Your task to perform on an android device: Open Maps and search for coffee Image 0: 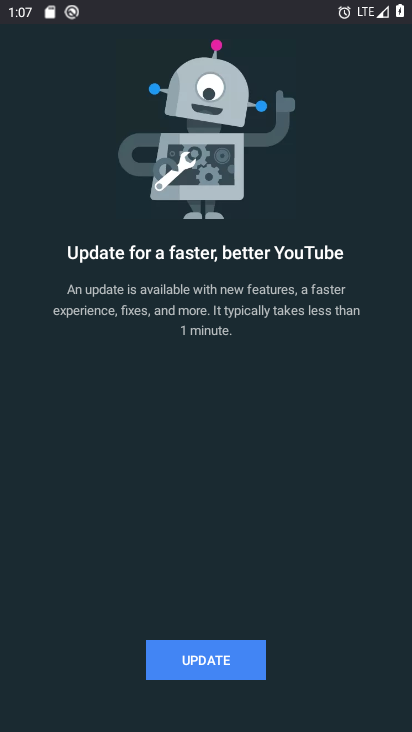
Step 0: press home button
Your task to perform on an android device: Open Maps and search for coffee Image 1: 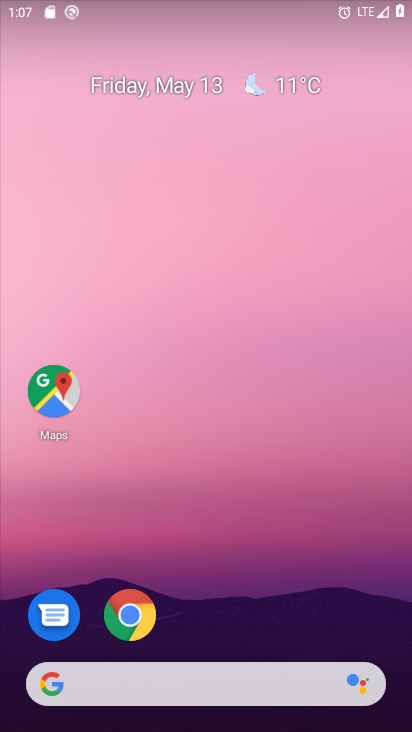
Step 1: click (63, 389)
Your task to perform on an android device: Open Maps and search for coffee Image 2: 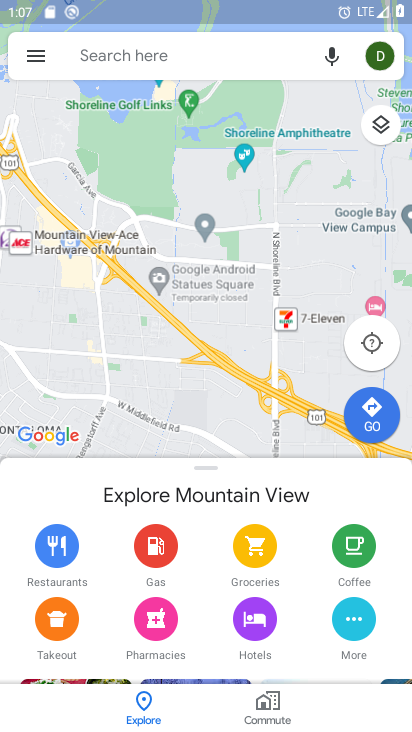
Step 2: click (219, 57)
Your task to perform on an android device: Open Maps and search for coffee Image 3: 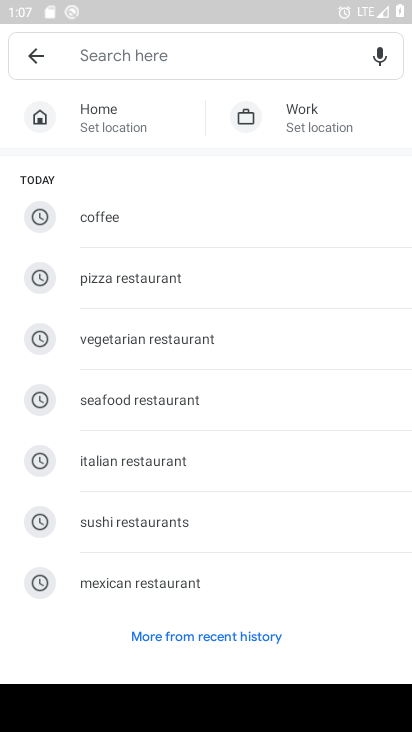
Step 3: click (137, 219)
Your task to perform on an android device: Open Maps and search for coffee Image 4: 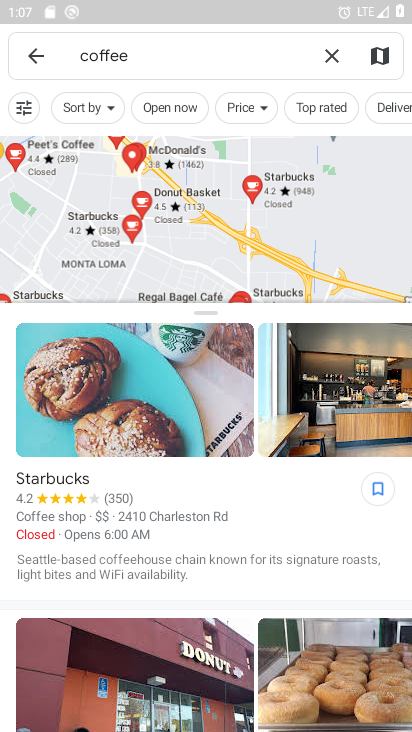
Step 4: task complete